Your task to perform on an android device: toggle notifications settings in the gmail app Image 0: 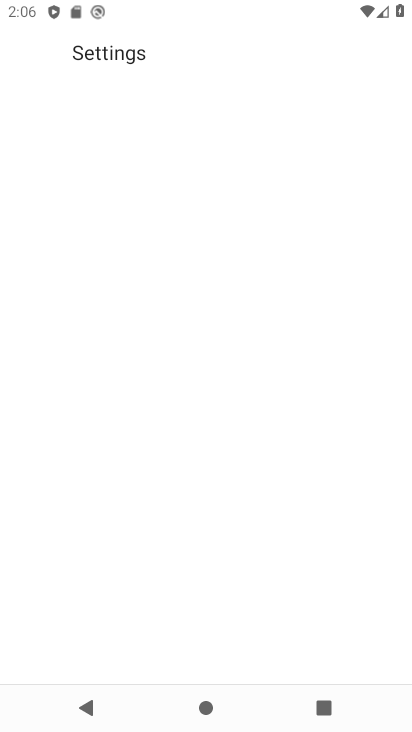
Step 0: drag from (310, 425) to (398, 62)
Your task to perform on an android device: toggle notifications settings in the gmail app Image 1: 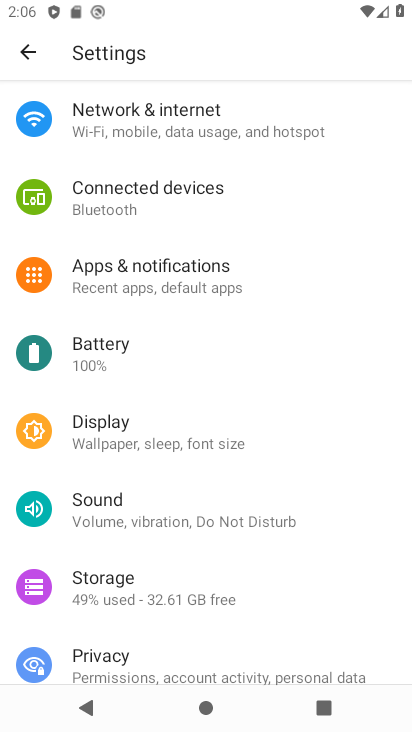
Step 1: press home button
Your task to perform on an android device: toggle notifications settings in the gmail app Image 2: 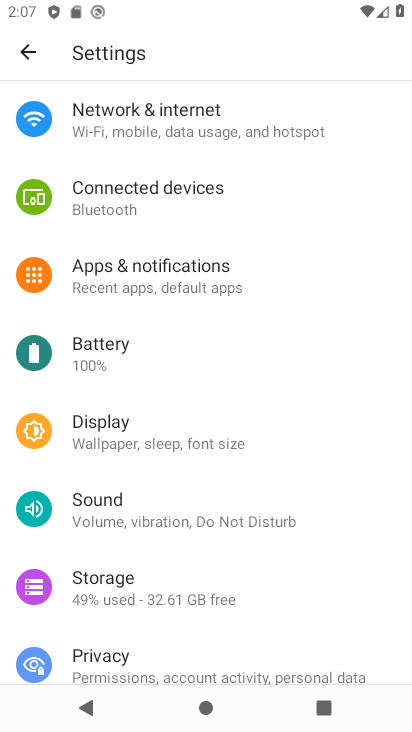
Step 2: drag from (398, 62) to (397, 580)
Your task to perform on an android device: toggle notifications settings in the gmail app Image 3: 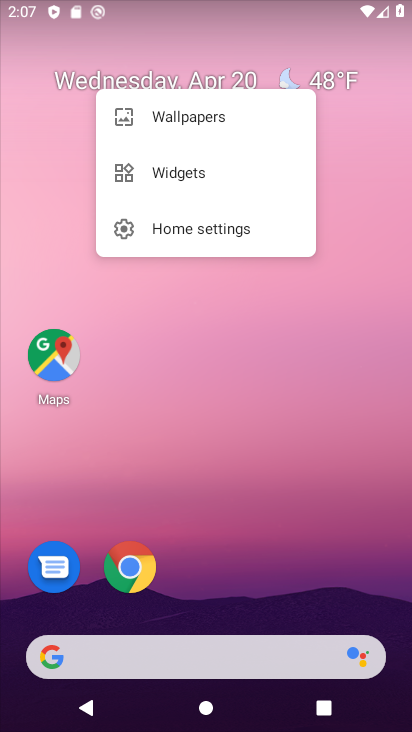
Step 3: drag from (306, 464) to (305, 54)
Your task to perform on an android device: toggle notifications settings in the gmail app Image 4: 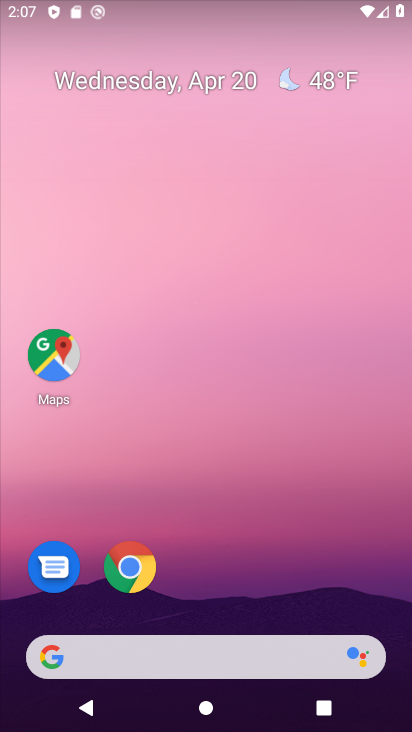
Step 4: drag from (250, 472) to (256, 56)
Your task to perform on an android device: toggle notifications settings in the gmail app Image 5: 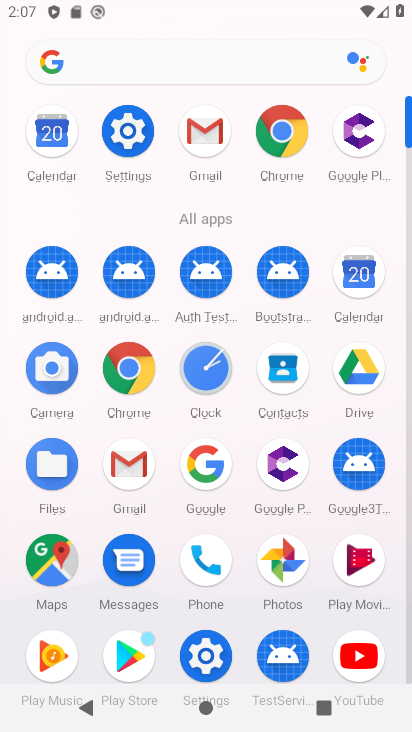
Step 5: click (208, 126)
Your task to perform on an android device: toggle notifications settings in the gmail app Image 6: 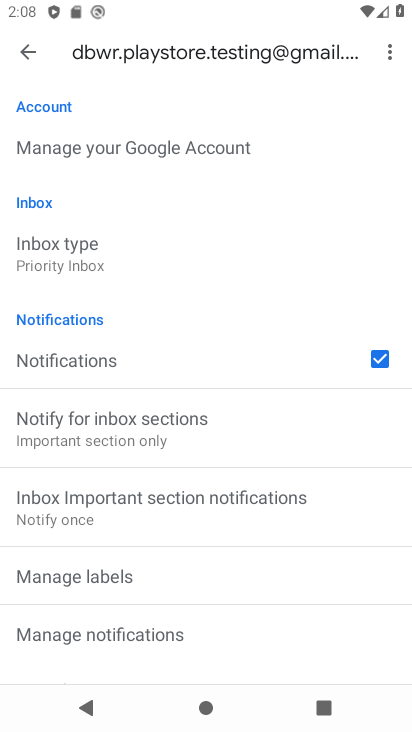
Step 6: click (147, 637)
Your task to perform on an android device: toggle notifications settings in the gmail app Image 7: 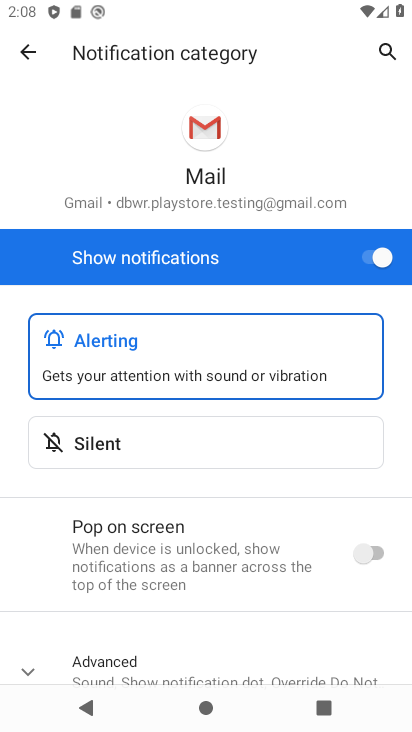
Step 7: click (365, 255)
Your task to perform on an android device: toggle notifications settings in the gmail app Image 8: 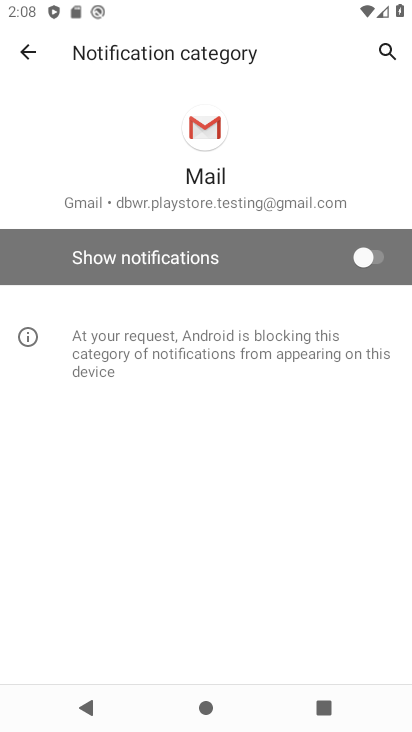
Step 8: task complete